Your task to perform on an android device: change the upload size in google photos Image 0: 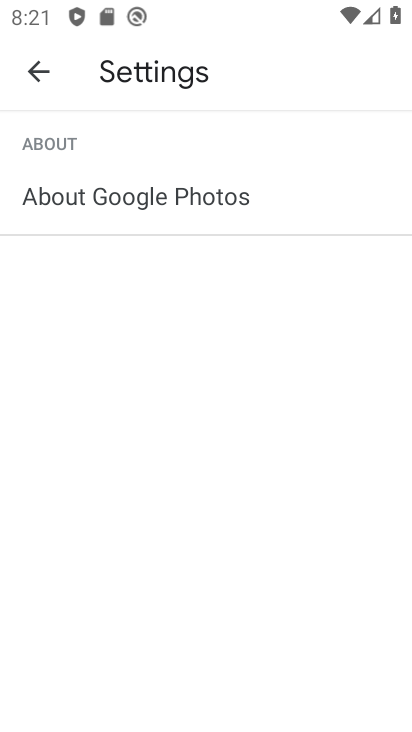
Step 0: press home button
Your task to perform on an android device: change the upload size in google photos Image 1: 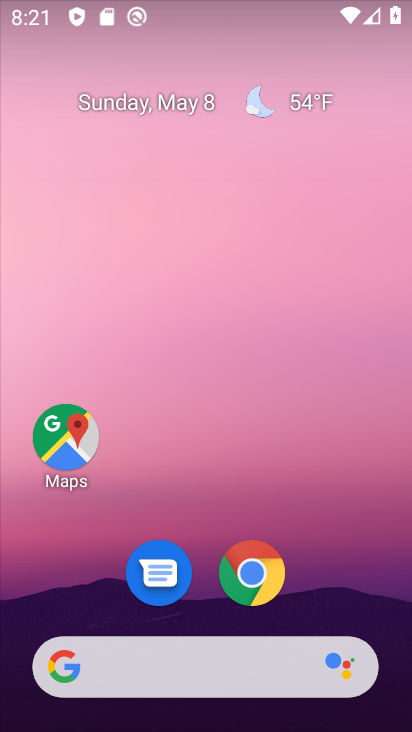
Step 1: drag from (210, 712) to (193, 226)
Your task to perform on an android device: change the upload size in google photos Image 2: 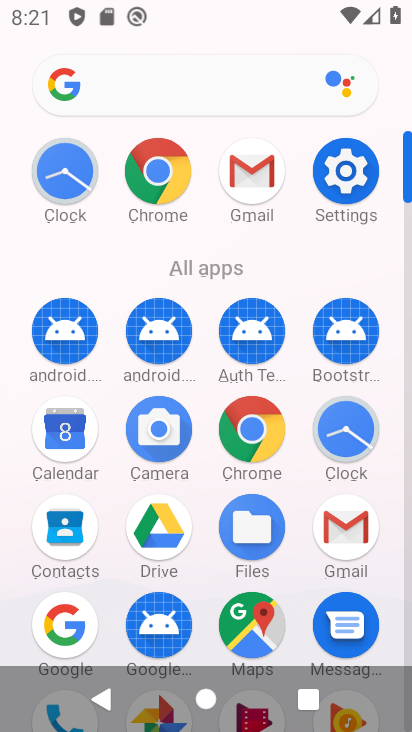
Step 2: drag from (199, 578) to (212, 227)
Your task to perform on an android device: change the upload size in google photos Image 3: 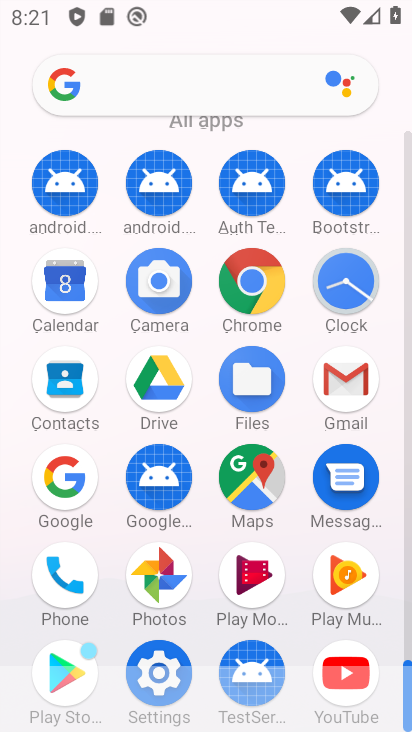
Step 3: click (155, 572)
Your task to perform on an android device: change the upload size in google photos Image 4: 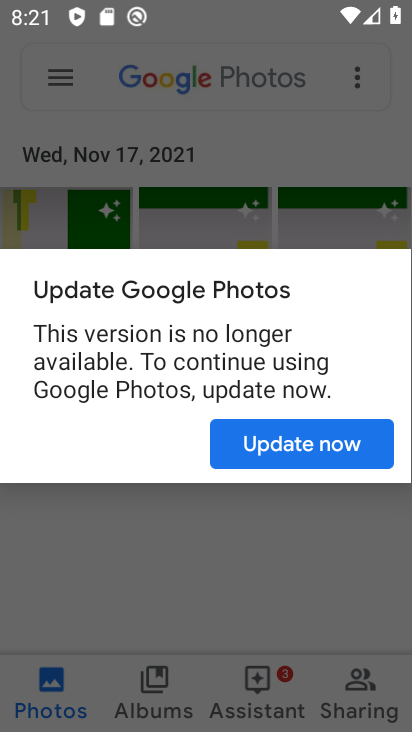
Step 4: click (272, 445)
Your task to perform on an android device: change the upload size in google photos Image 5: 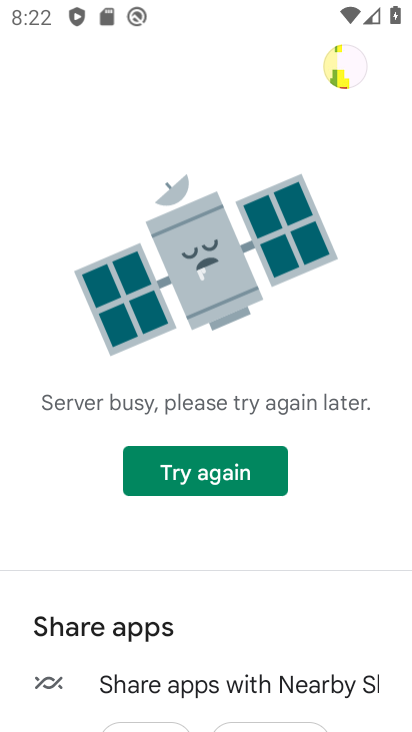
Step 5: task complete